Your task to perform on an android device: Set the phone to "Do not disturb". Image 0: 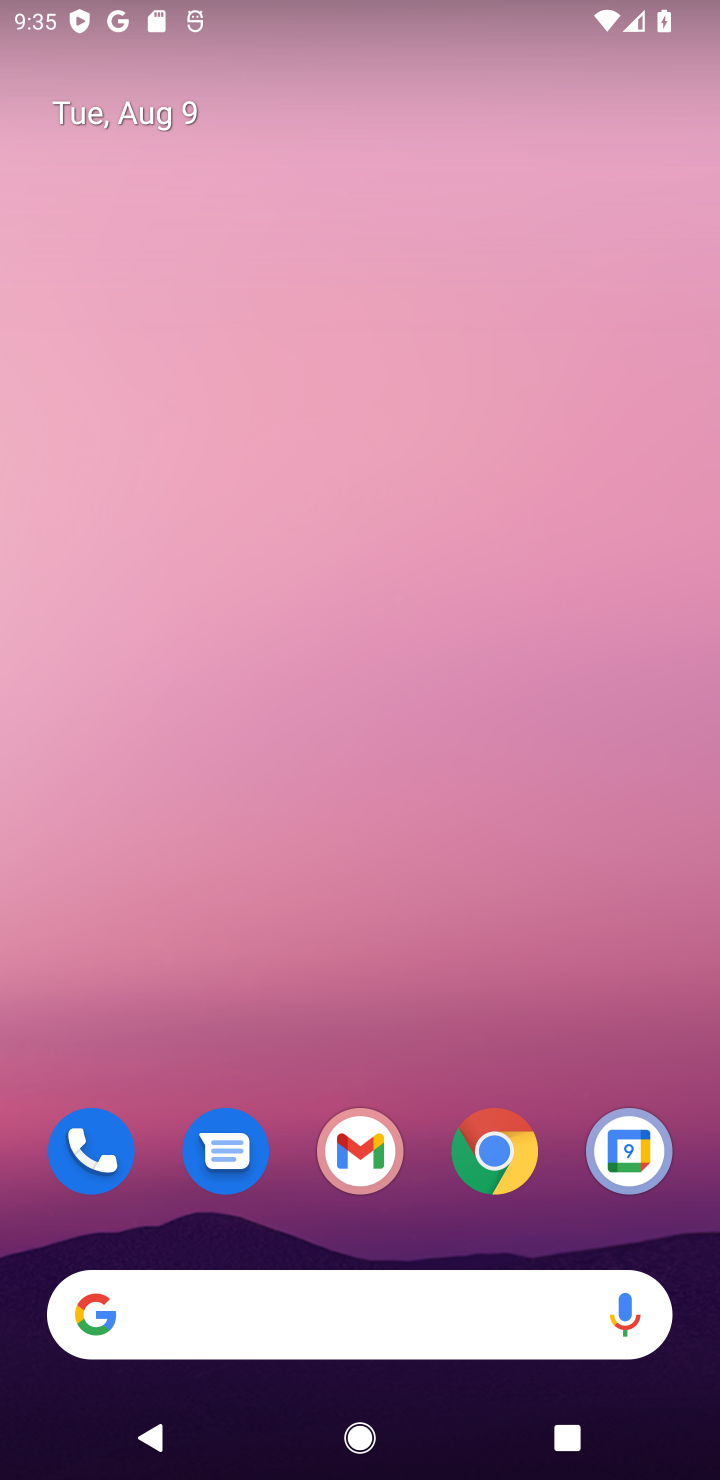
Step 0: drag from (329, 7) to (341, 783)
Your task to perform on an android device: Set the phone to "Do not disturb". Image 1: 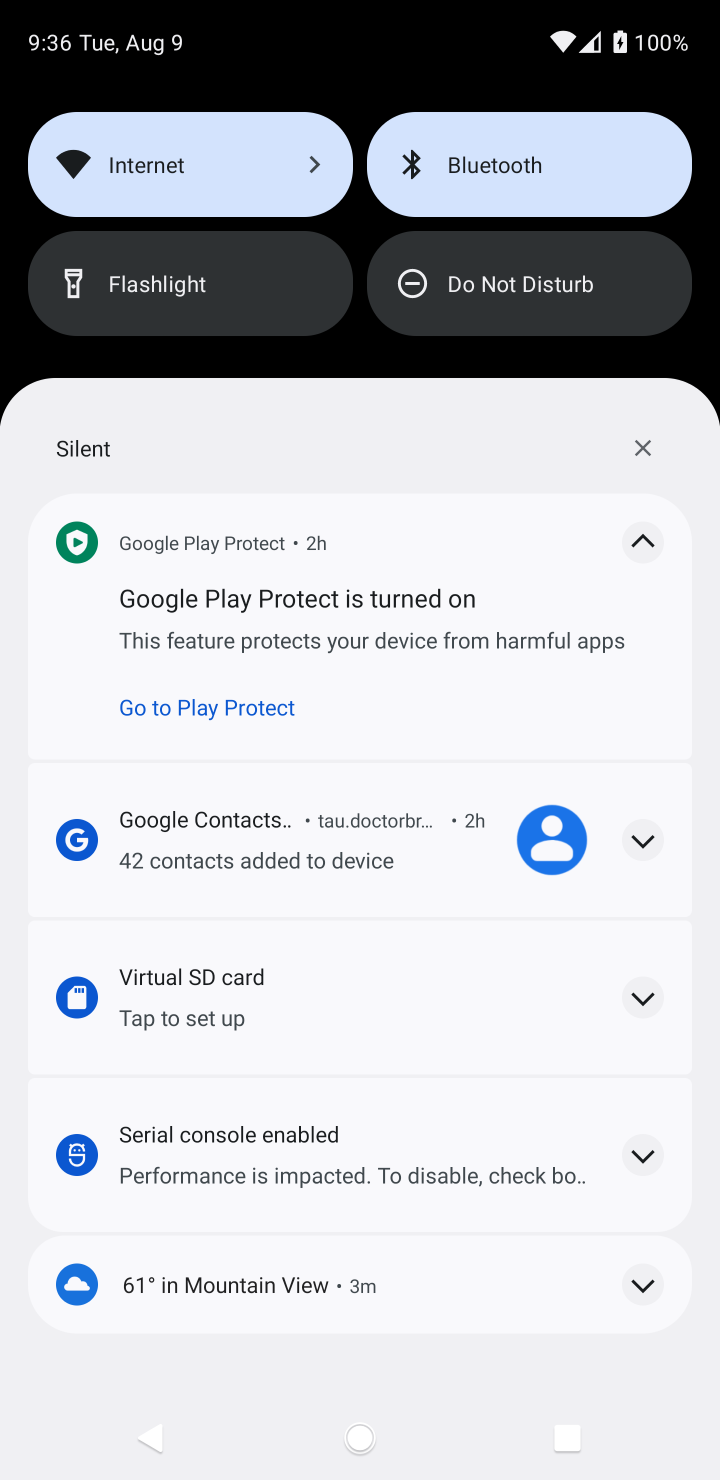
Step 1: click (459, 295)
Your task to perform on an android device: Set the phone to "Do not disturb". Image 2: 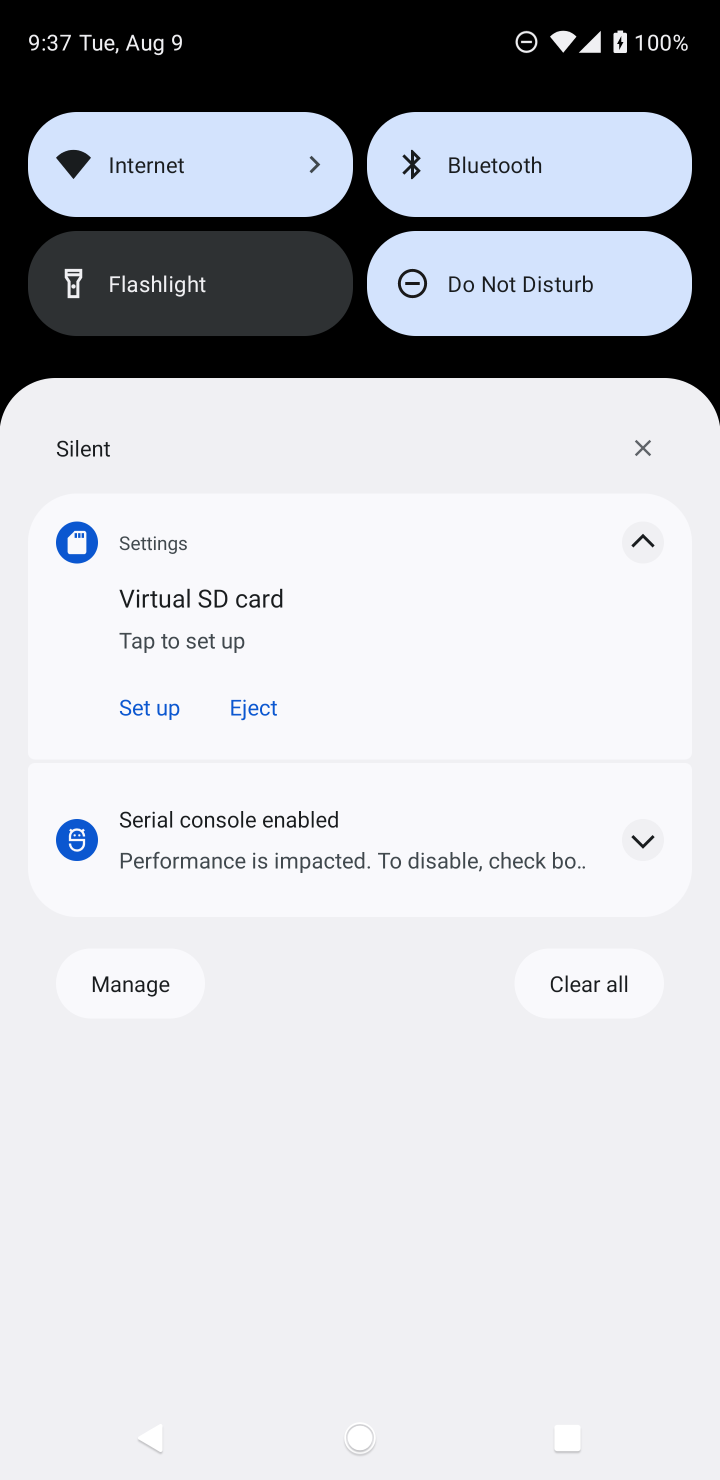
Step 2: task complete